Your task to perform on an android device: turn on javascript in the chrome app Image 0: 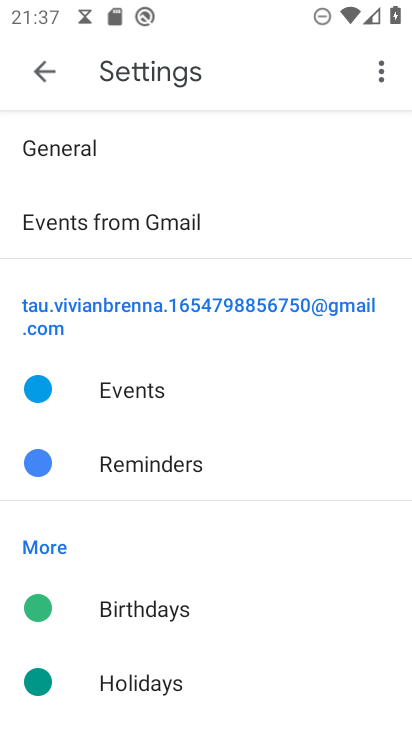
Step 0: press home button
Your task to perform on an android device: turn on javascript in the chrome app Image 1: 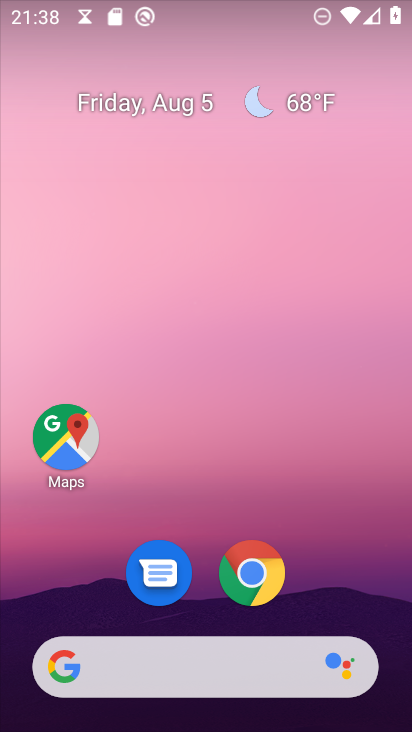
Step 1: click (252, 573)
Your task to perform on an android device: turn on javascript in the chrome app Image 2: 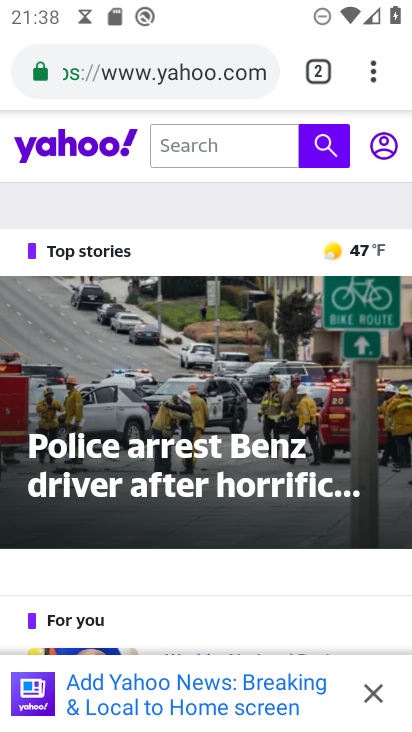
Step 2: click (373, 74)
Your task to perform on an android device: turn on javascript in the chrome app Image 3: 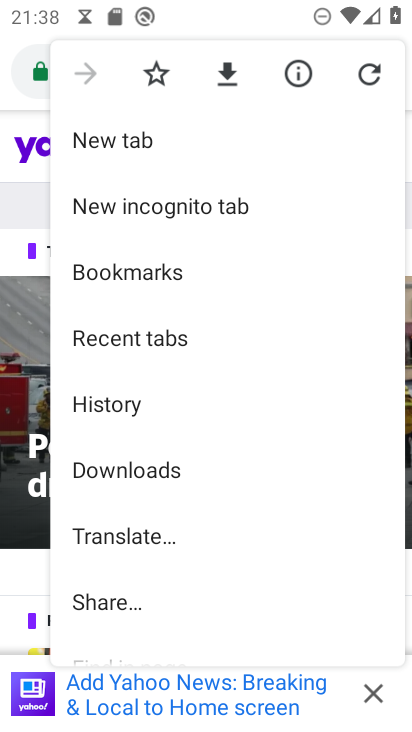
Step 3: drag from (175, 567) to (226, 460)
Your task to perform on an android device: turn on javascript in the chrome app Image 4: 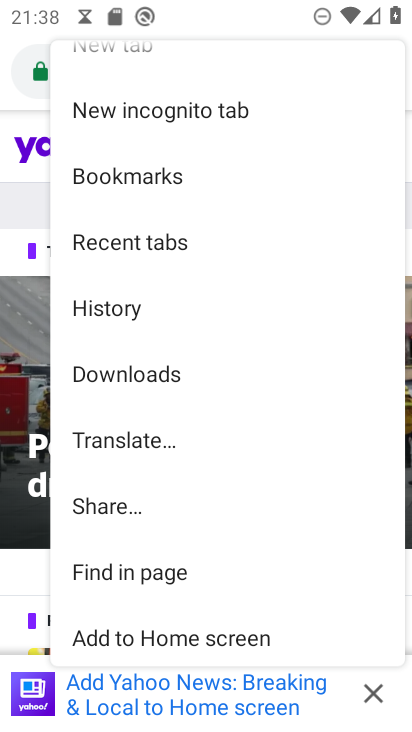
Step 4: drag from (206, 585) to (258, 488)
Your task to perform on an android device: turn on javascript in the chrome app Image 5: 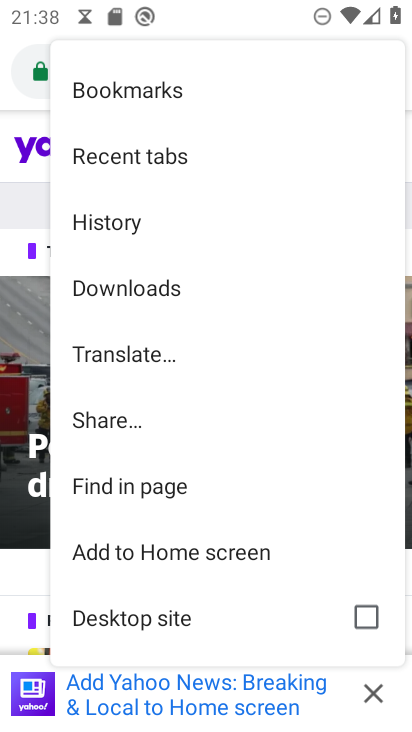
Step 5: drag from (174, 569) to (263, 456)
Your task to perform on an android device: turn on javascript in the chrome app Image 6: 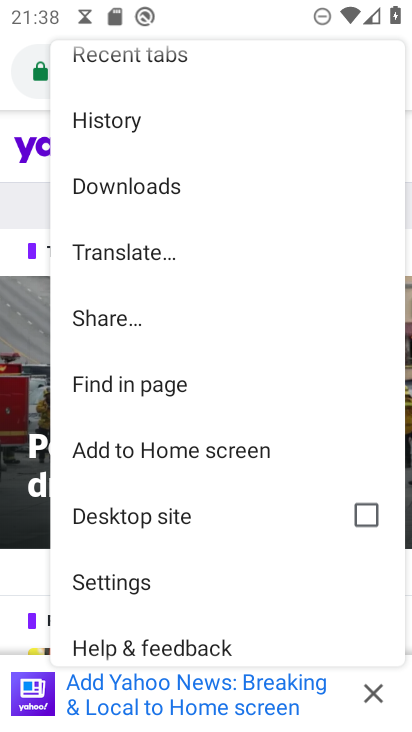
Step 6: drag from (159, 547) to (245, 419)
Your task to perform on an android device: turn on javascript in the chrome app Image 7: 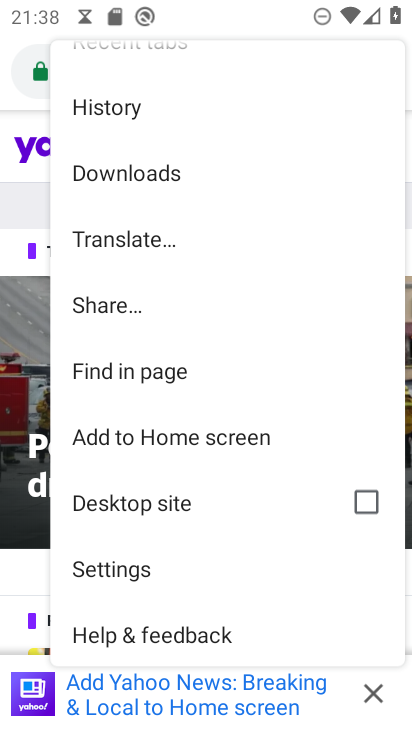
Step 7: click (130, 569)
Your task to perform on an android device: turn on javascript in the chrome app Image 8: 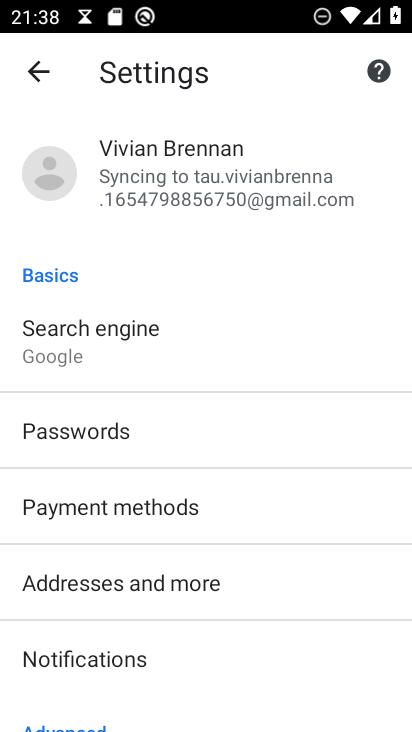
Step 8: drag from (175, 637) to (225, 469)
Your task to perform on an android device: turn on javascript in the chrome app Image 9: 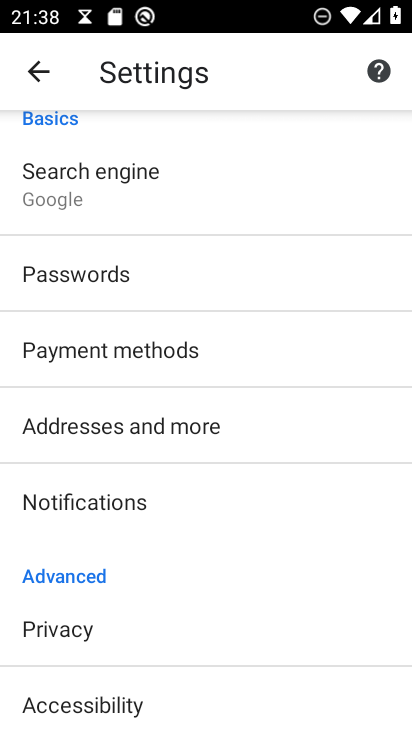
Step 9: drag from (134, 635) to (215, 519)
Your task to perform on an android device: turn on javascript in the chrome app Image 10: 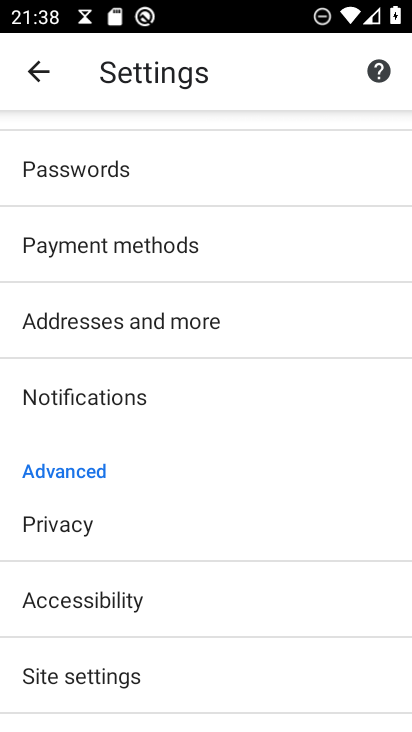
Step 10: drag from (127, 647) to (211, 539)
Your task to perform on an android device: turn on javascript in the chrome app Image 11: 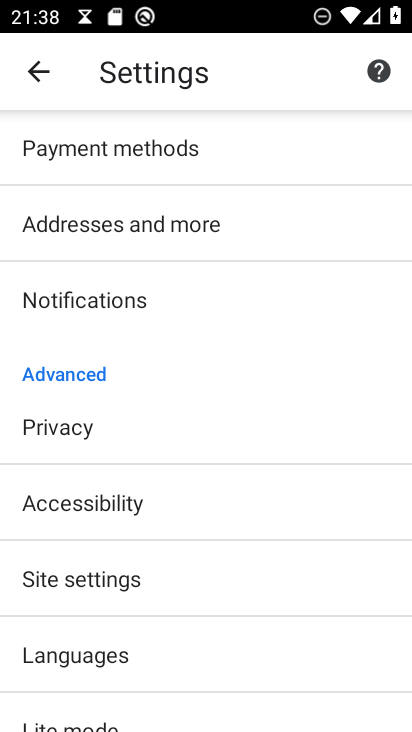
Step 11: click (111, 577)
Your task to perform on an android device: turn on javascript in the chrome app Image 12: 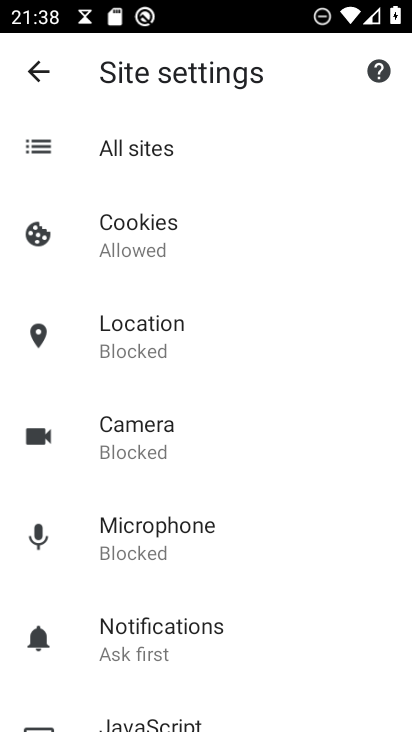
Step 12: drag from (169, 590) to (255, 481)
Your task to perform on an android device: turn on javascript in the chrome app Image 13: 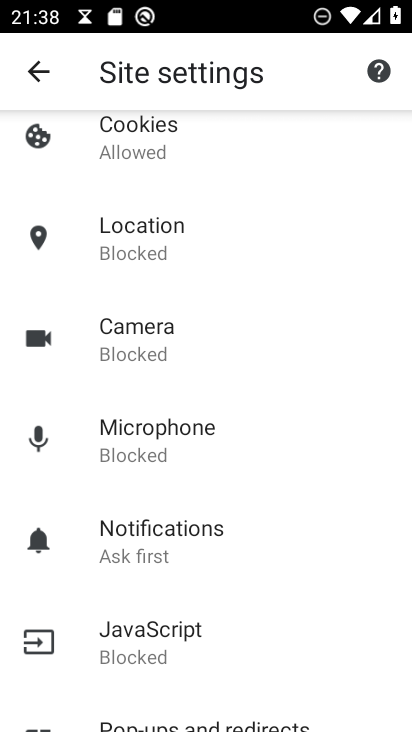
Step 13: click (179, 624)
Your task to perform on an android device: turn on javascript in the chrome app Image 14: 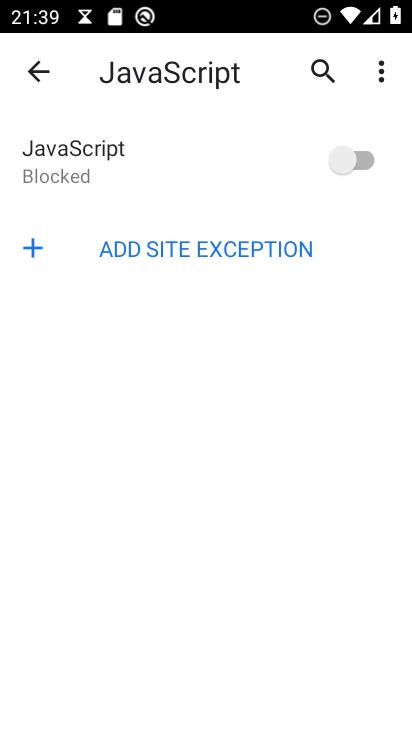
Step 14: click (348, 165)
Your task to perform on an android device: turn on javascript in the chrome app Image 15: 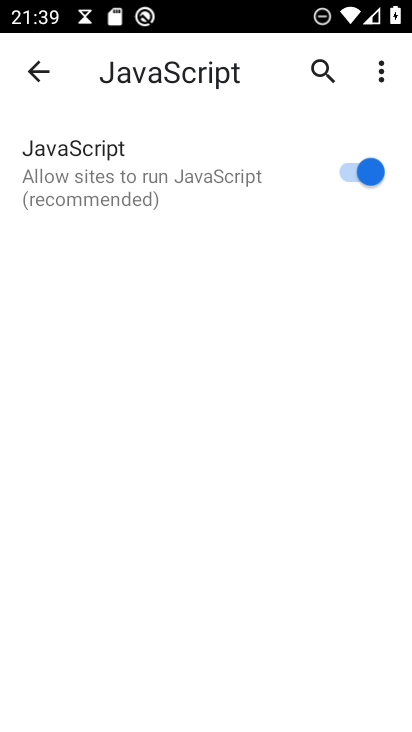
Step 15: task complete